Your task to perform on an android device: Open calendar and show me the second week of next month Image 0: 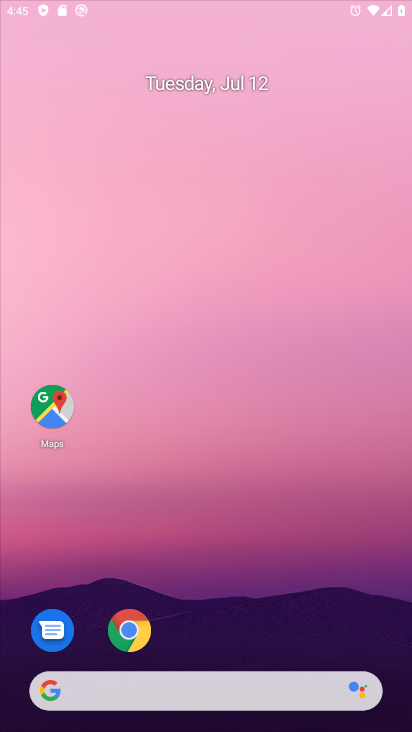
Step 0: drag from (18, 47) to (110, 121)
Your task to perform on an android device: Open calendar and show me the second week of next month Image 1: 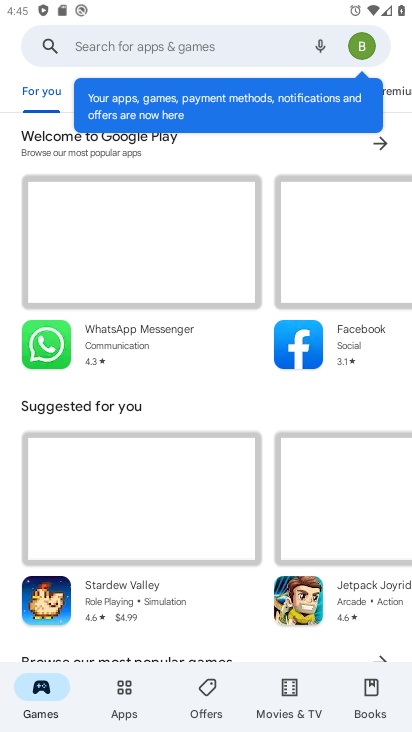
Step 1: press back button
Your task to perform on an android device: Open calendar and show me the second week of next month Image 2: 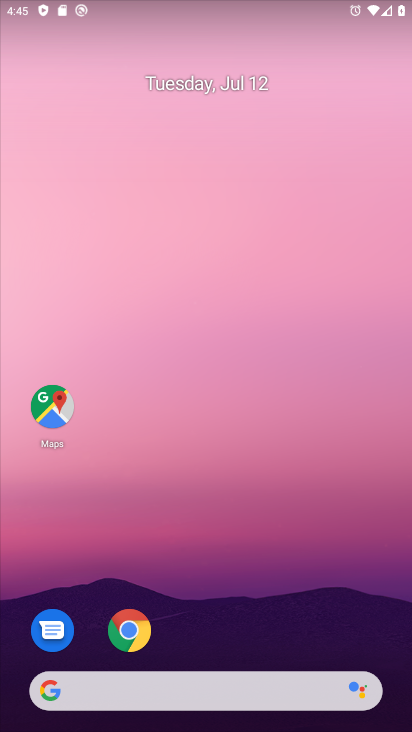
Step 2: drag from (217, 692) to (119, 173)
Your task to perform on an android device: Open calendar and show me the second week of next month Image 3: 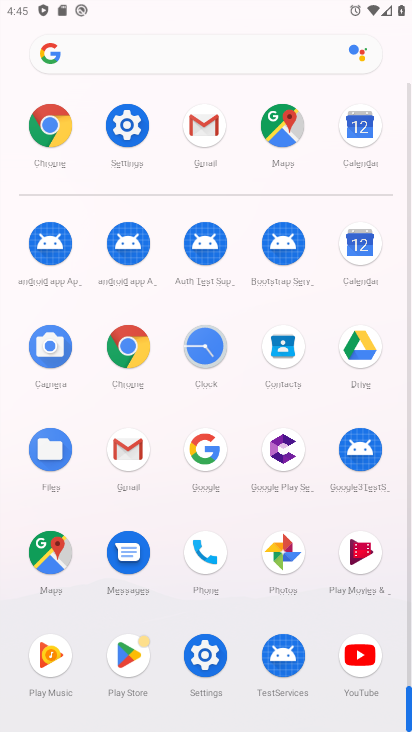
Step 3: click (364, 250)
Your task to perform on an android device: Open calendar and show me the second week of next month Image 4: 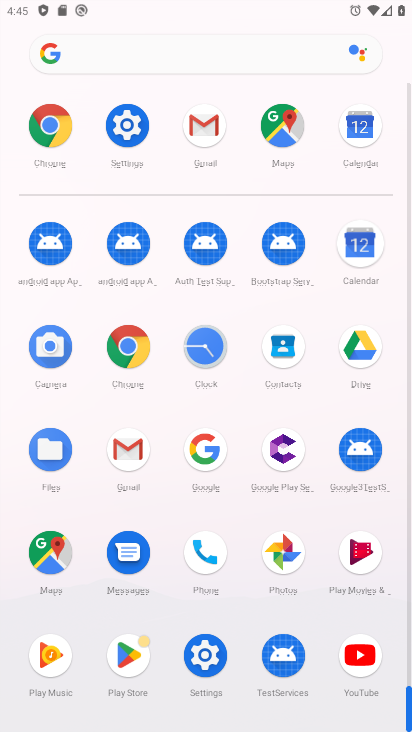
Step 4: click (364, 250)
Your task to perform on an android device: Open calendar and show me the second week of next month Image 5: 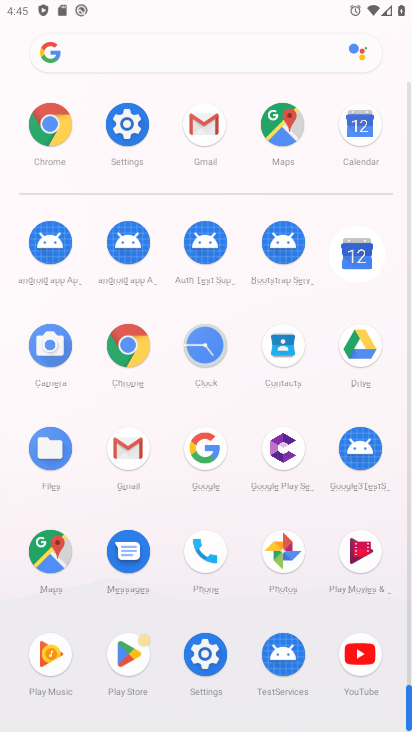
Step 5: click (364, 250)
Your task to perform on an android device: Open calendar and show me the second week of next month Image 6: 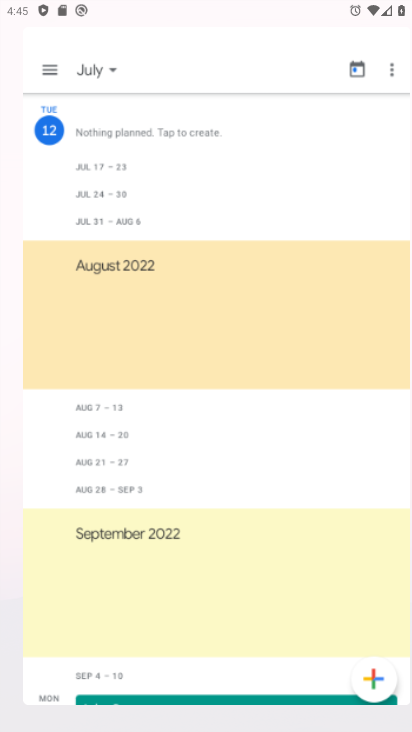
Step 6: click (363, 249)
Your task to perform on an android device: Open calendar and show me the second week of next month Image 7: 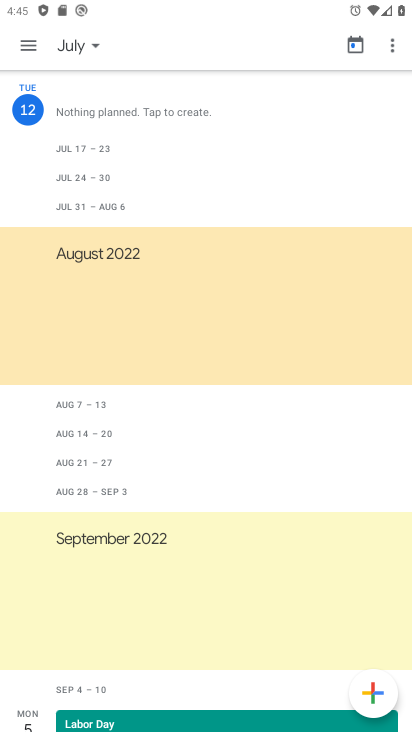
Step 7: click (363, 249)
Your task to perform on an android device: Open calendar and show me the second week of next month Image 8: 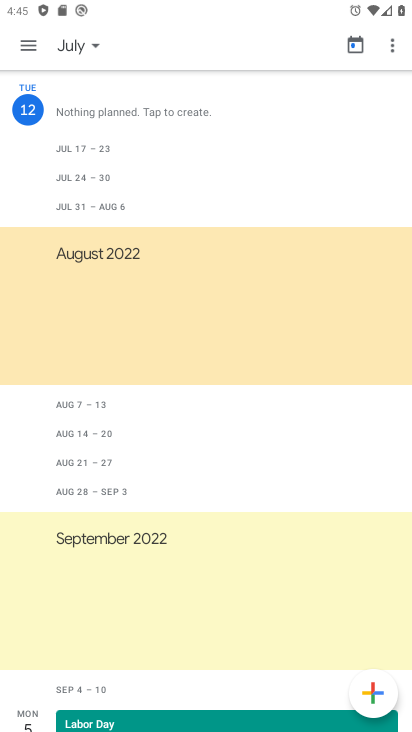
Step 8: press back button
Your task to perform on an android device: Open calendar and show me the second week of next month Image 9: 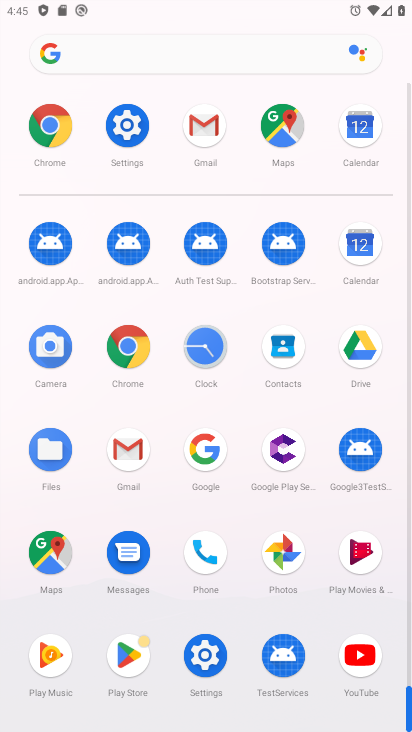
Step 9: click (359, 243)
Your task to perform on an android device: Open calendar and show me the second week of next month Image 10: 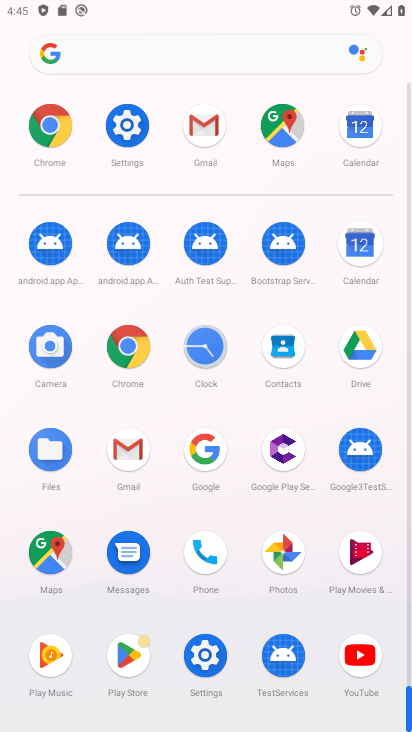
Step 10: click (358, 242)
Your task to perform on an android device: Open calendar and show me the second week of next month Image 11: 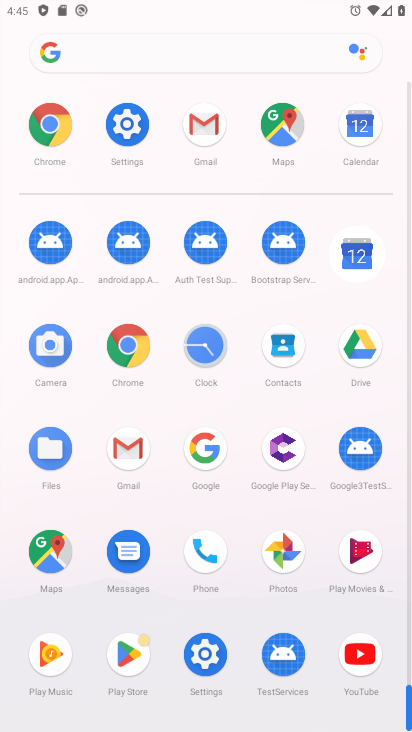
Step 11: click (358, 242)
Your task to perform on an android device: Open calendar and show me the second week of next month Image 12: 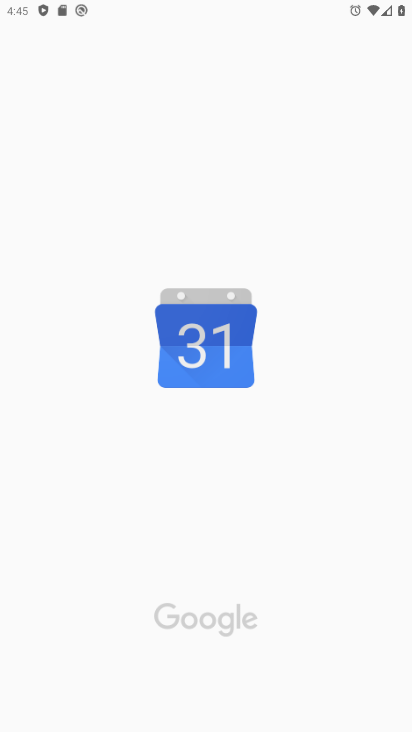
Step 12: click (358, 242)
Your task to perform on an android device: Open calendar and show me the second week of next month Image 13: 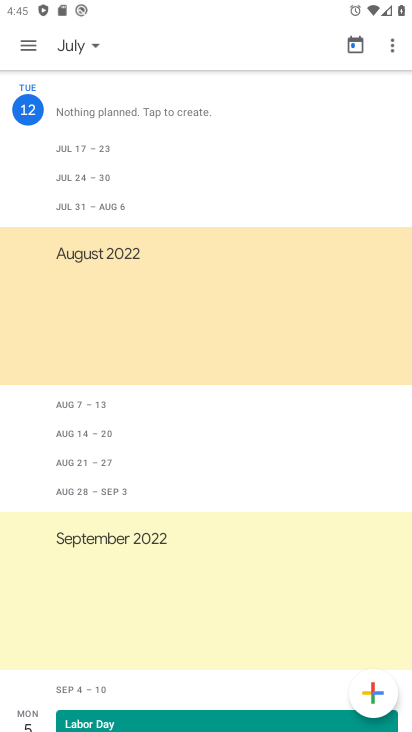
Step 13: click (99, 402)
Your task to perform on an android device: Open calendar and show me the second week of next month Image 14: 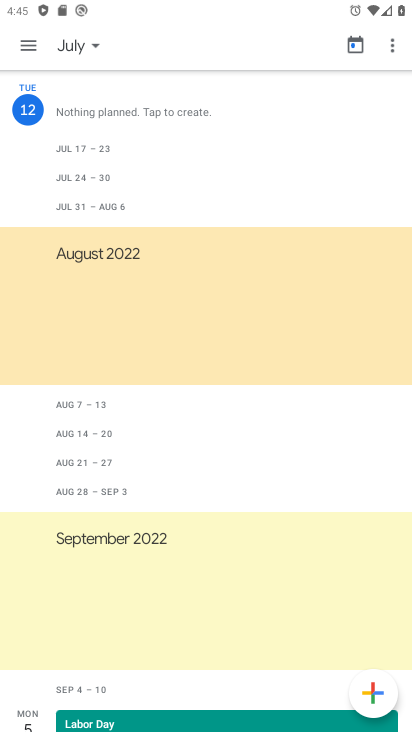
Step 14: click (99, 402)
Your task to perform on an android device: Open calendar and show me the second week of next month Image 15: 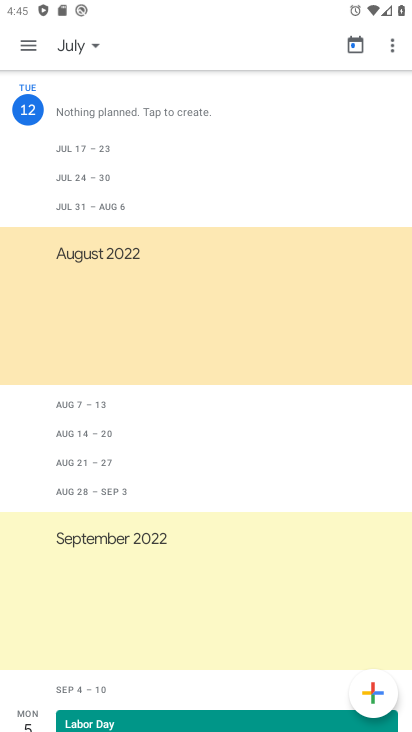
Step 15: click (99, 402)
Your task to perform on an android device: Open calendar and show me the second week of next month Image 16: 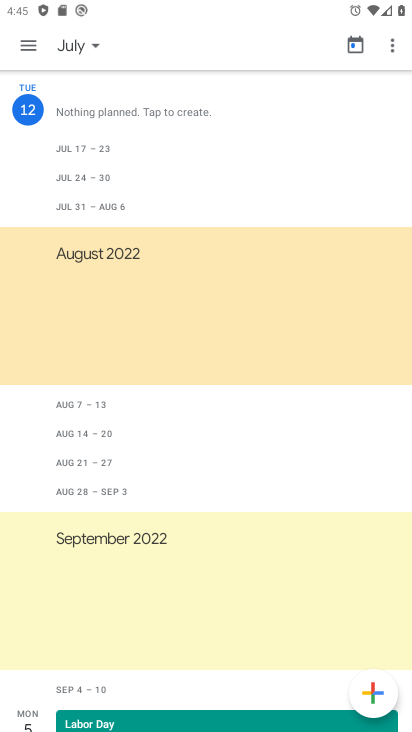
Step 16: click (99, 402)
Your task to perform on an android device: Open calendar and show me the second week of next month Image 17: 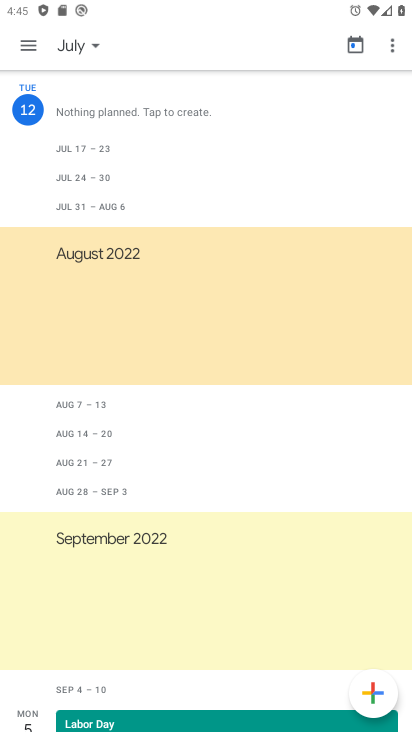
Step 17: click (99, 402)
Your task to perform on an android device: Open calendar and show me the second week of next month Image 18: 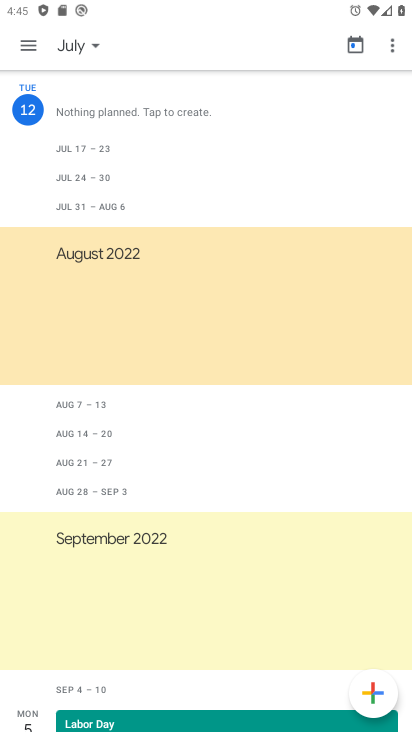
Step 18: click (99, 402)
Your task to perform on an android device: Open calendar and show me the second week of next month Image 19: 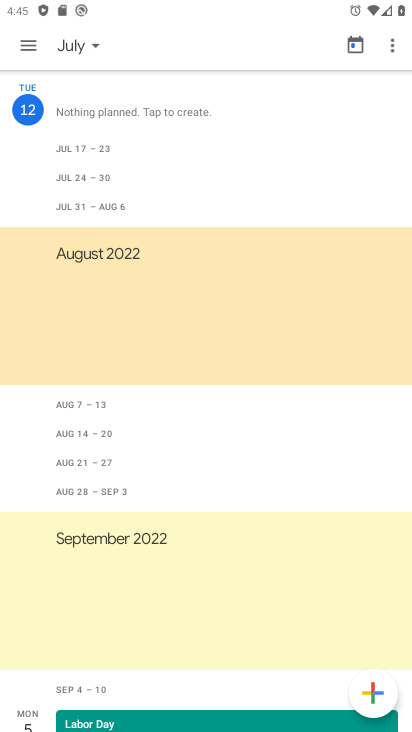
Step 19: click (99, 402)
Your task to perform on an android device: Open calendar and show me the second week of next month Image 20: 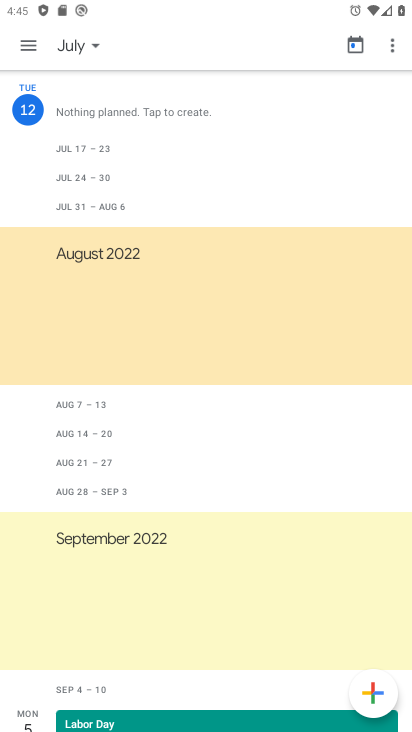
Step 20: click (99, 402)
Your task to perform on an android device: Open calendar and show me the second week of next month Image 21: 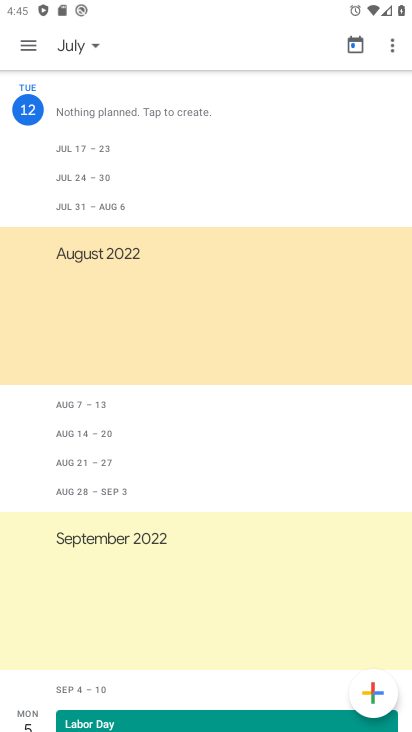
Step 21: click (92, 405)
Your task to perform on an android device: Open calendar and show me the second week of next month Image 22: 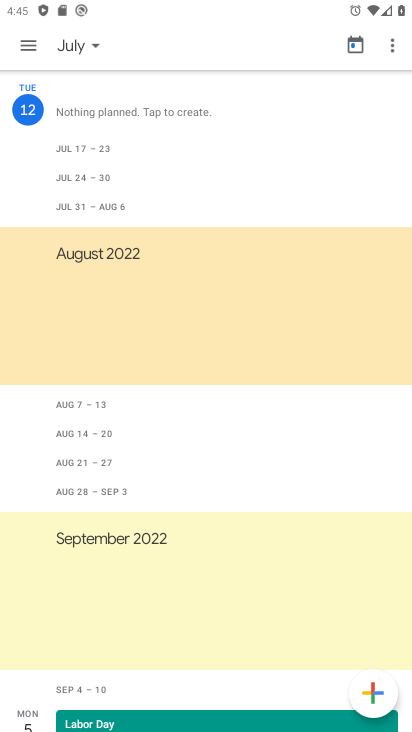
Step 22: click (91, 406)
Your task to perform on an android device: Open calendar and show me the second week of next month Image 23: 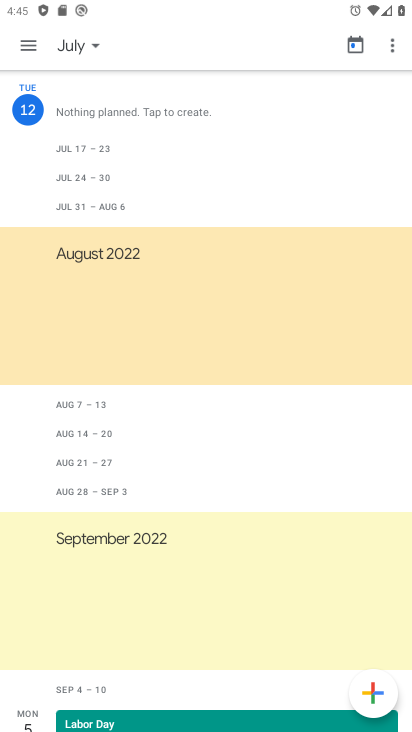
Step 23: click (91, 406)
Your task to perform on an android device: Open calendar and show me the second week of next month Image 24: 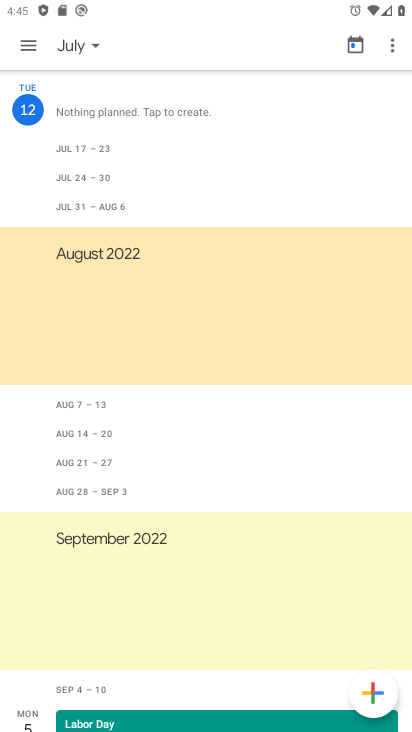
Step 24: click (73, 401)
Your task to perform on an android device: Open calendar and show me the second week of next month Image 25: 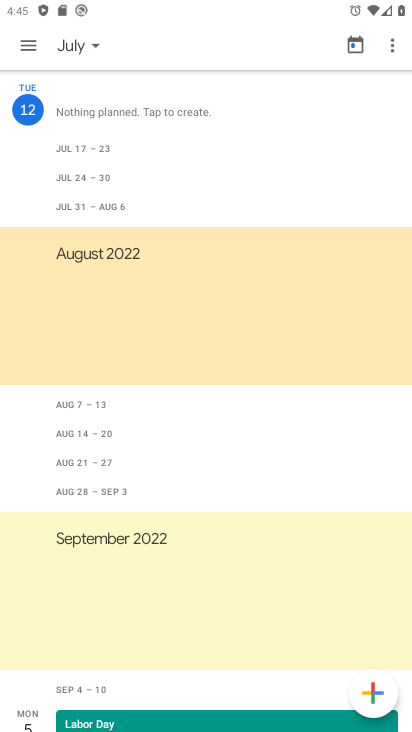
Step 25: click (73, 401)
Your task to perform on an android device: Open calendar and show me the second week of next month Image 26: 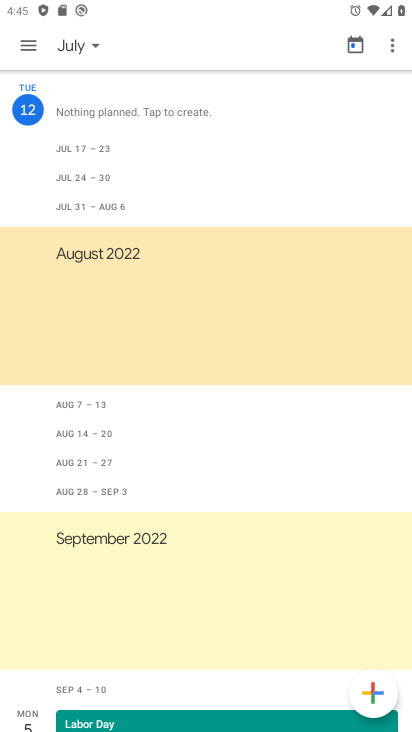
Step 26: click (73, 401)
Your task to perform on an android device: Open calendar and show me the second week of next month Image 27: 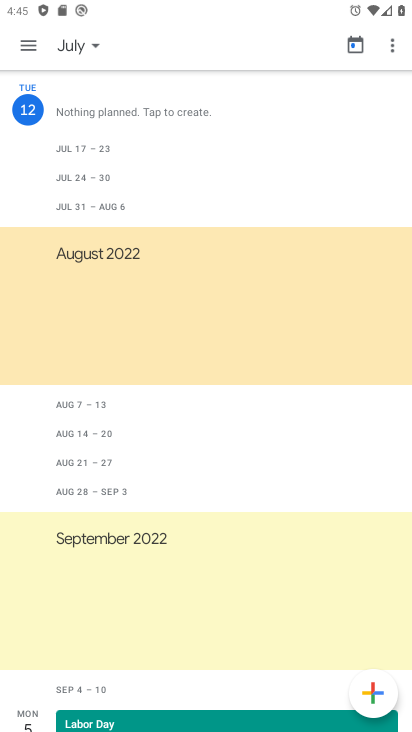
Step 27: click (73, 401)
Your task to perform on an android device: Open calendar and show me the second week of next month Image 28: 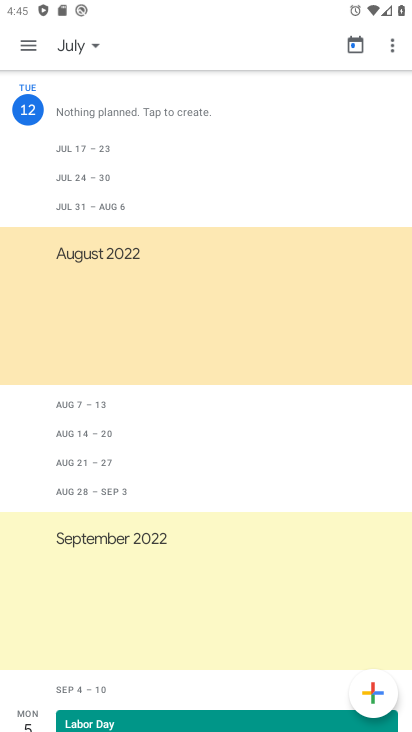
Step 28: click (77, 401)
Your task to perform on an android device: Open calendar and show me the second week of next month Image 29: 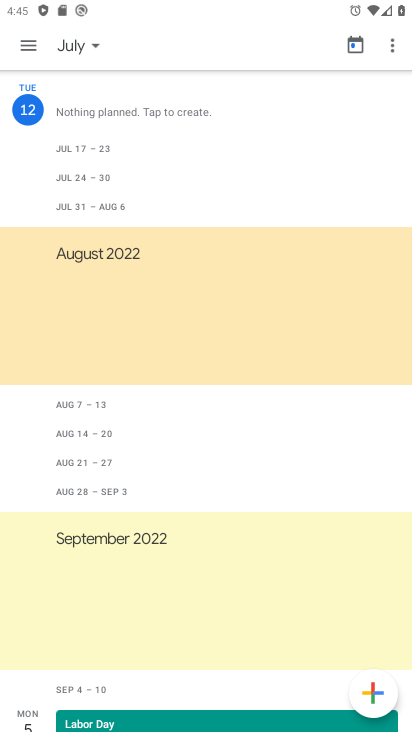
Step 29: click (80, 403)
Your task to perform on an android device: Open calendar and show me the second week of next month Image 30: 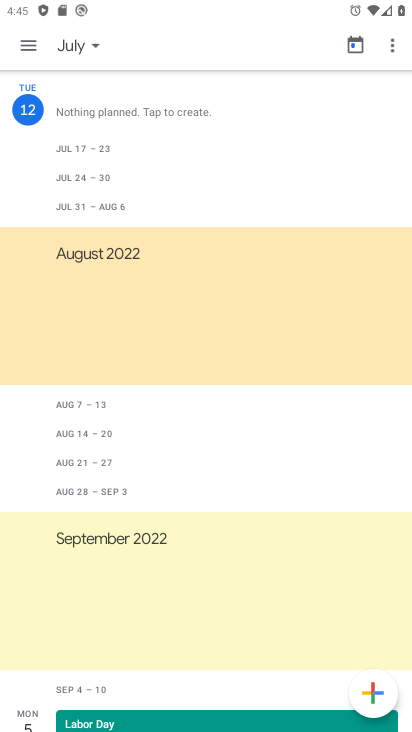
Step 30: click (81, 403)
Your task to perform on an android device: Open calendar and show me the second week of next month Image 31: 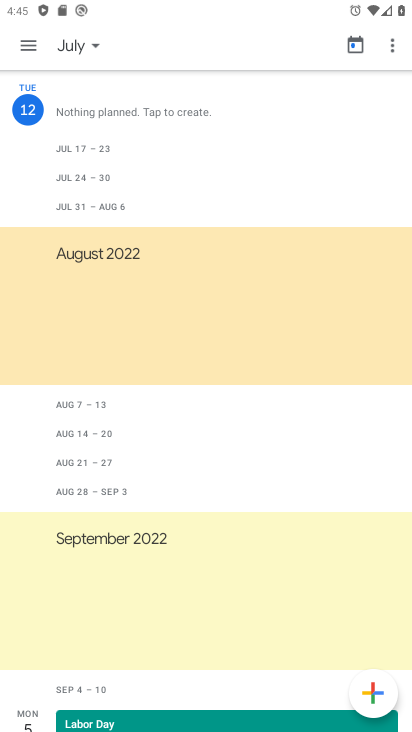
Step 31: click (81, 403)
Your task to perform on an android device: Open calendar and show me the second week of next month Image 32: 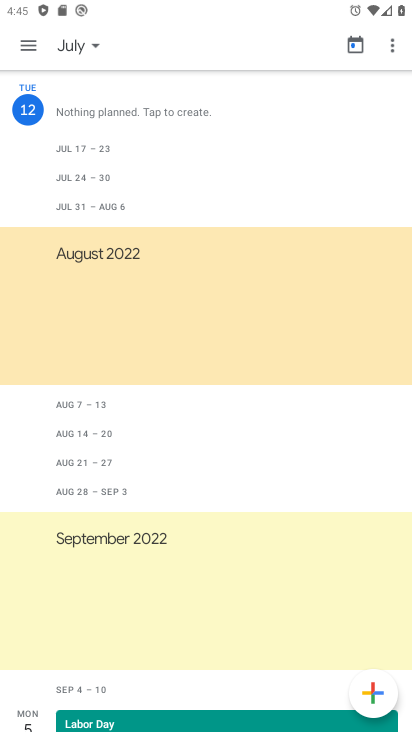
Step 32: click (87, 404)
Your task to perform on an android device: Open calendar and show me the second week of next month Image 33: 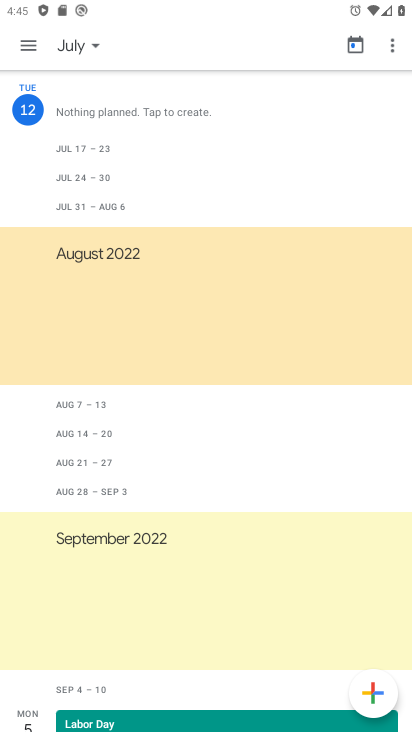
Step 33: click (94, 405)
Your task to perform on an android device: Open calendar and show me the second week of next month Image 34: 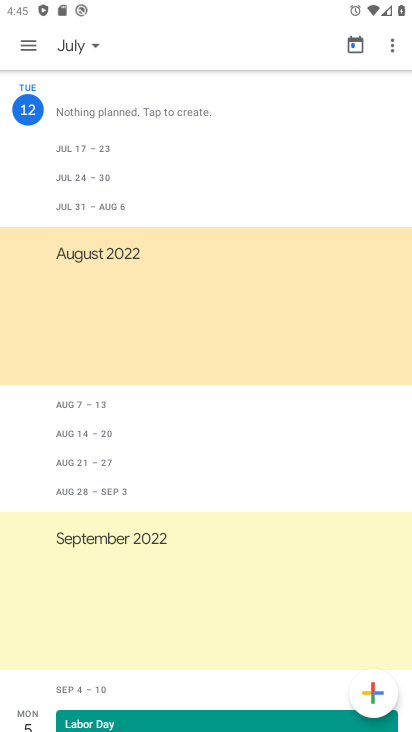
Step 34: click (97, 405)
Your task to perform on an android device: Open calendar and show me the second week of next month Image 35: 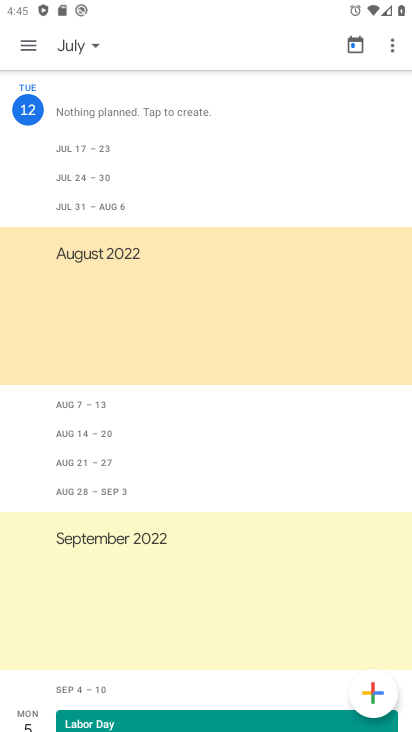
Step 35: click (99, 405)
Your task to perform on an android device: Open calendar and show me the second week of next month Image 36: 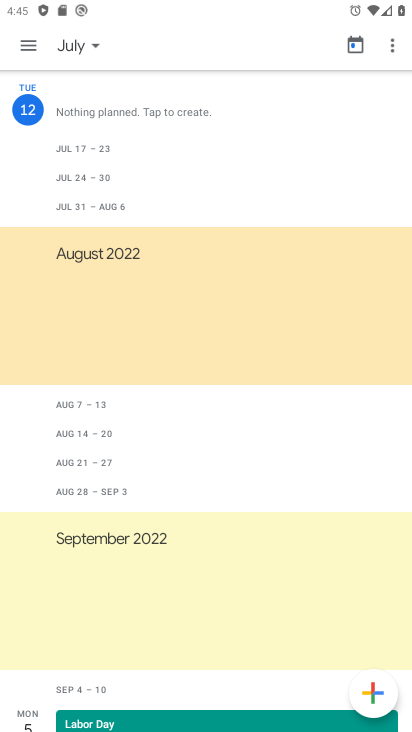
Step 36: click (103, 407)
Your task to perform on an android device: Open calendar and show me the second week of next month Image 37: 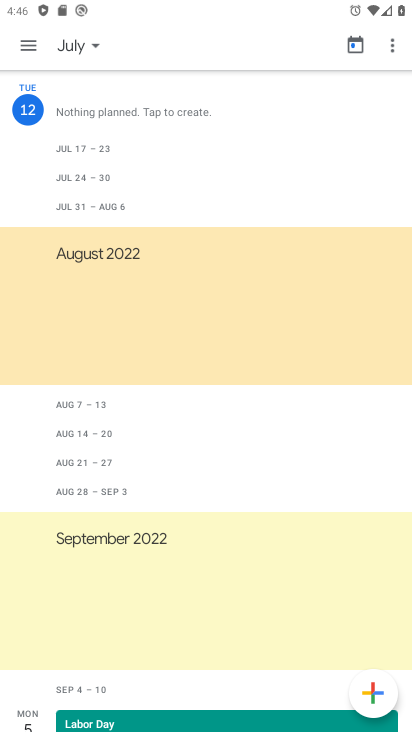
Step 37: task complete